Your task to perform on an android device: toggle show notifications on the lock screen Image 0: 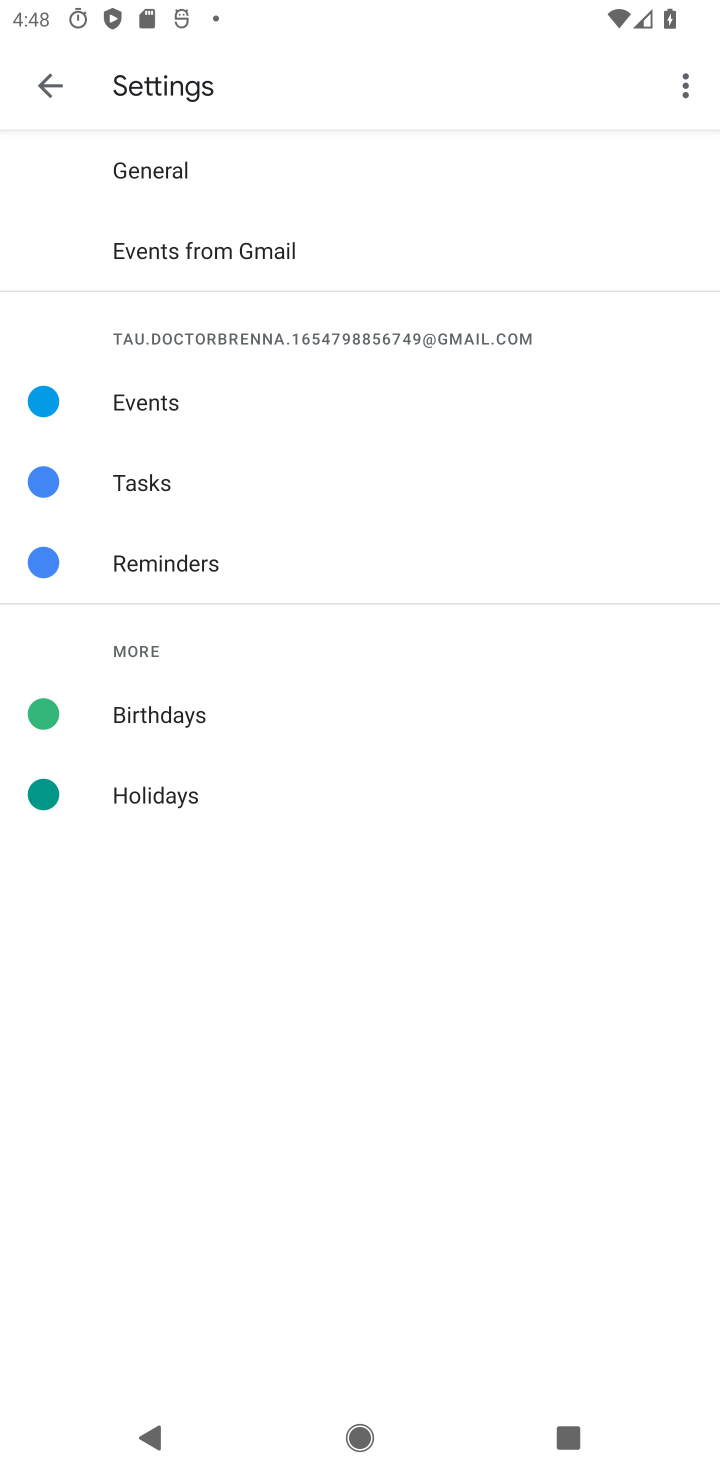
Step 0: press home button
Your task to perform on an android device: toggle show notifications on the lock screen Image 1: 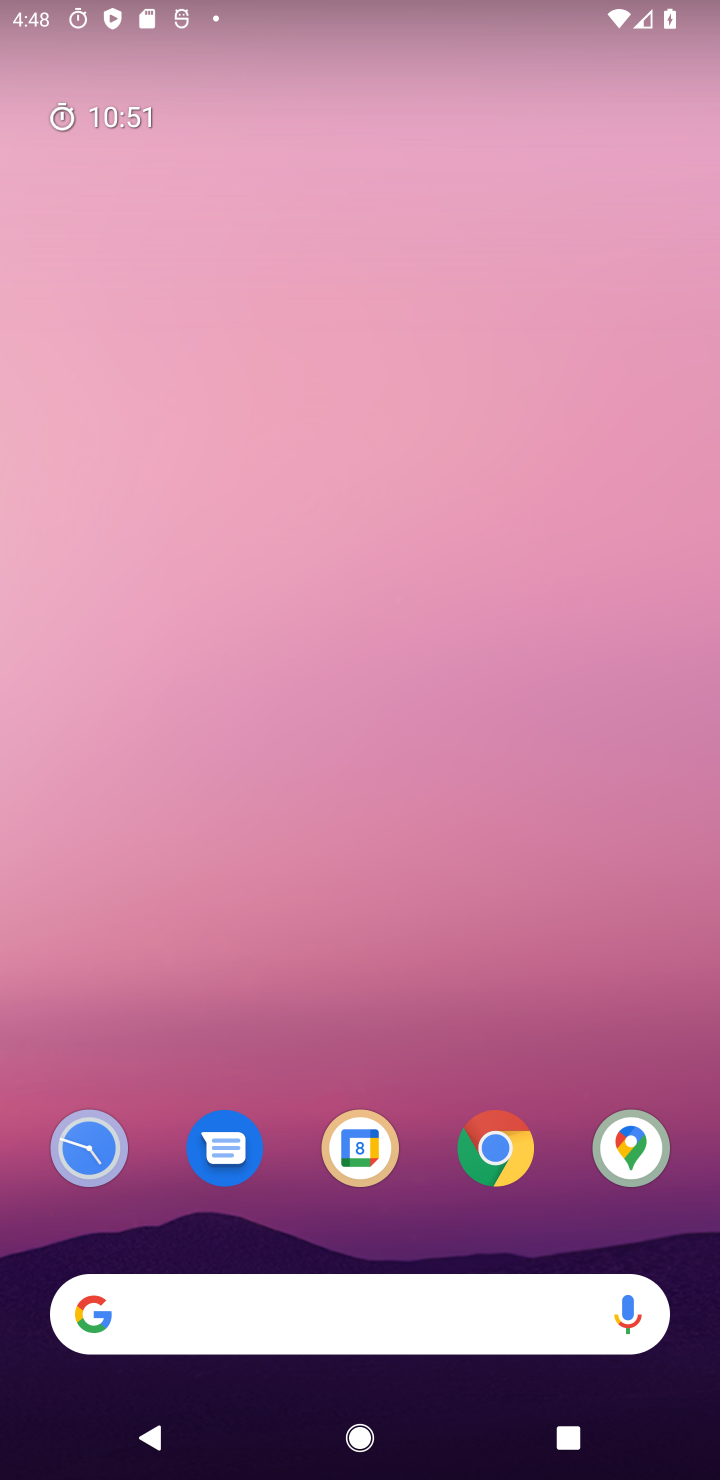
Step 1: drag from (387, 1160) to (294, 36)
Your task to perform on an android device: toggle show notifications on the lock screen Image 2: 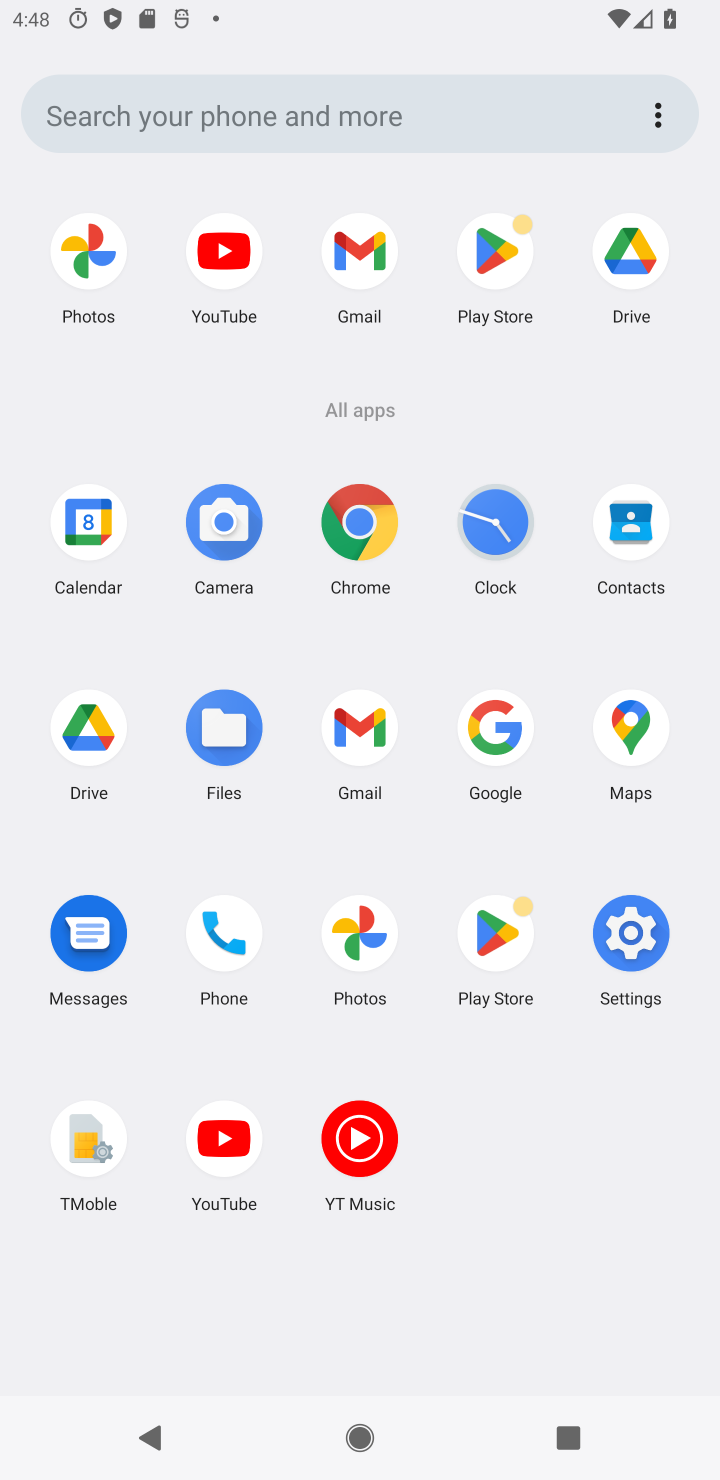
Step 2: click (629, 950)
Your task to perform on an android device: toggle show notifications on the lock screen Image 3: 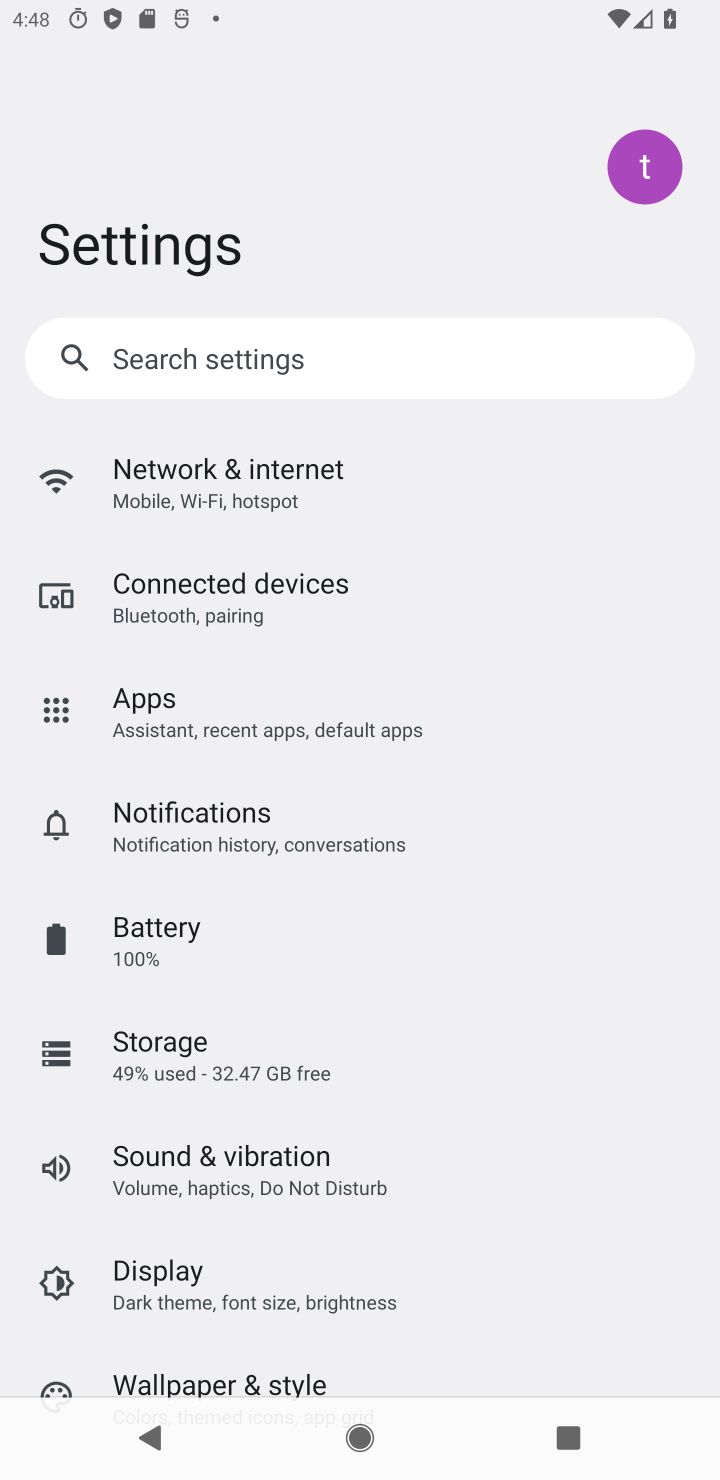
Step 3: click (264, 821)
Your task to perform on an android device: toggle show notifications on the lock screen Image 4: 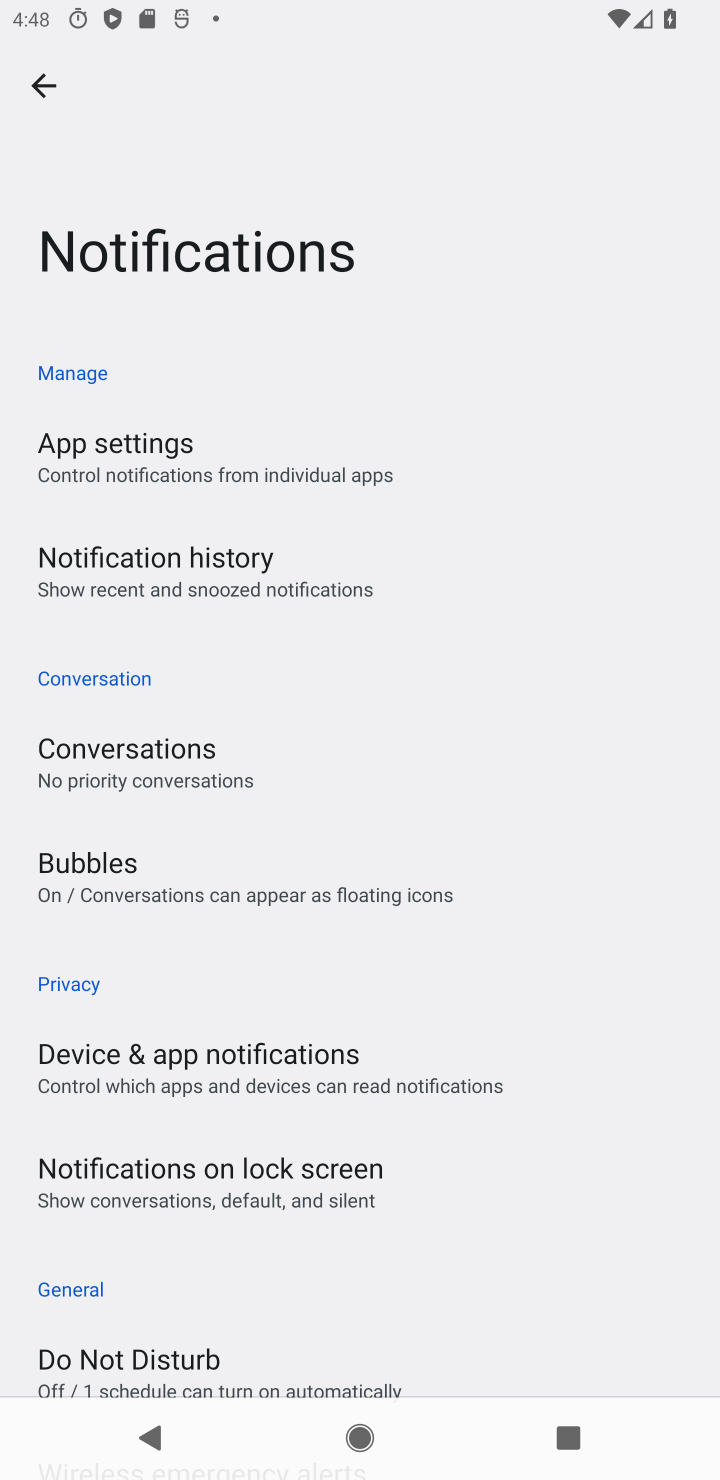
Step 4: click (187, 1165)
Your task to perform on an android device: toggle show notifications on the lock screen Image 5: 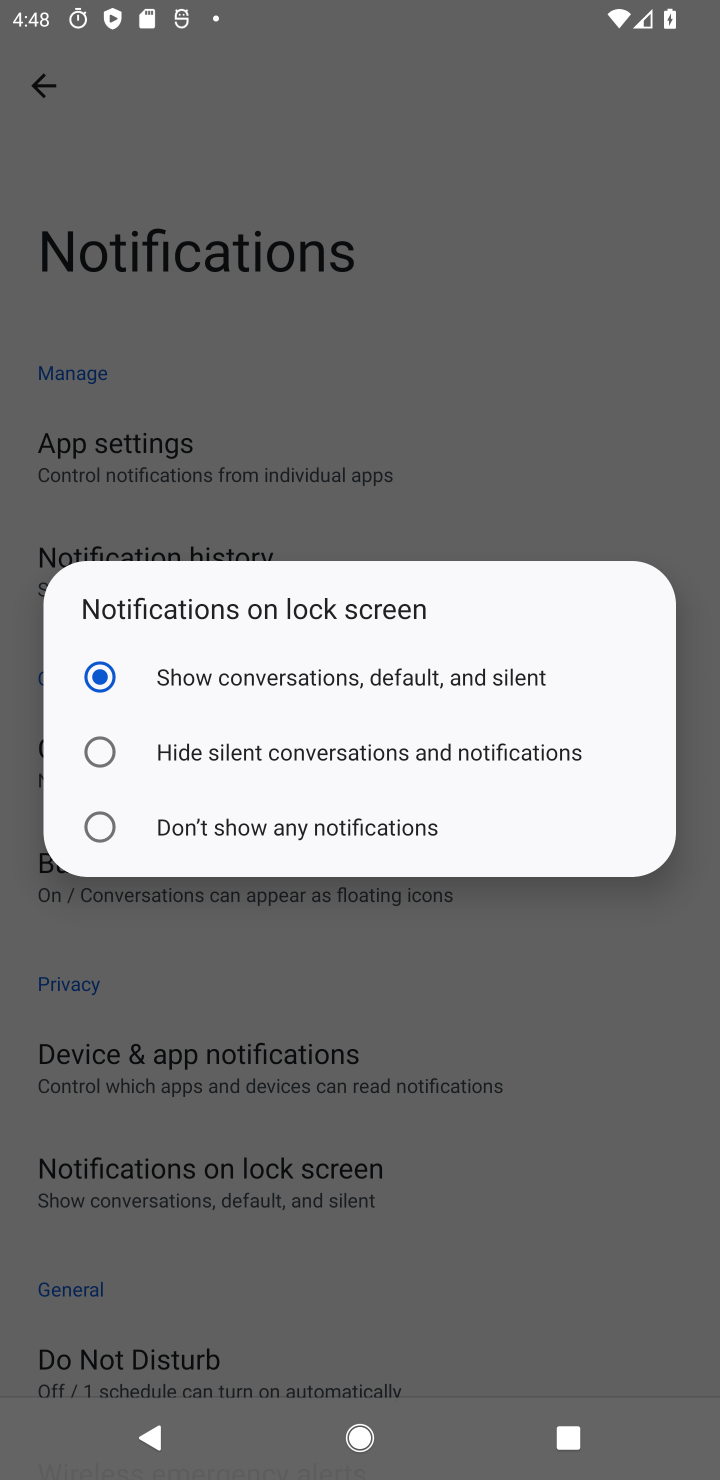
Step 5: click (226, 761)
Your task to perform on an android device: toggle show notifications on the lock screen Image 6: 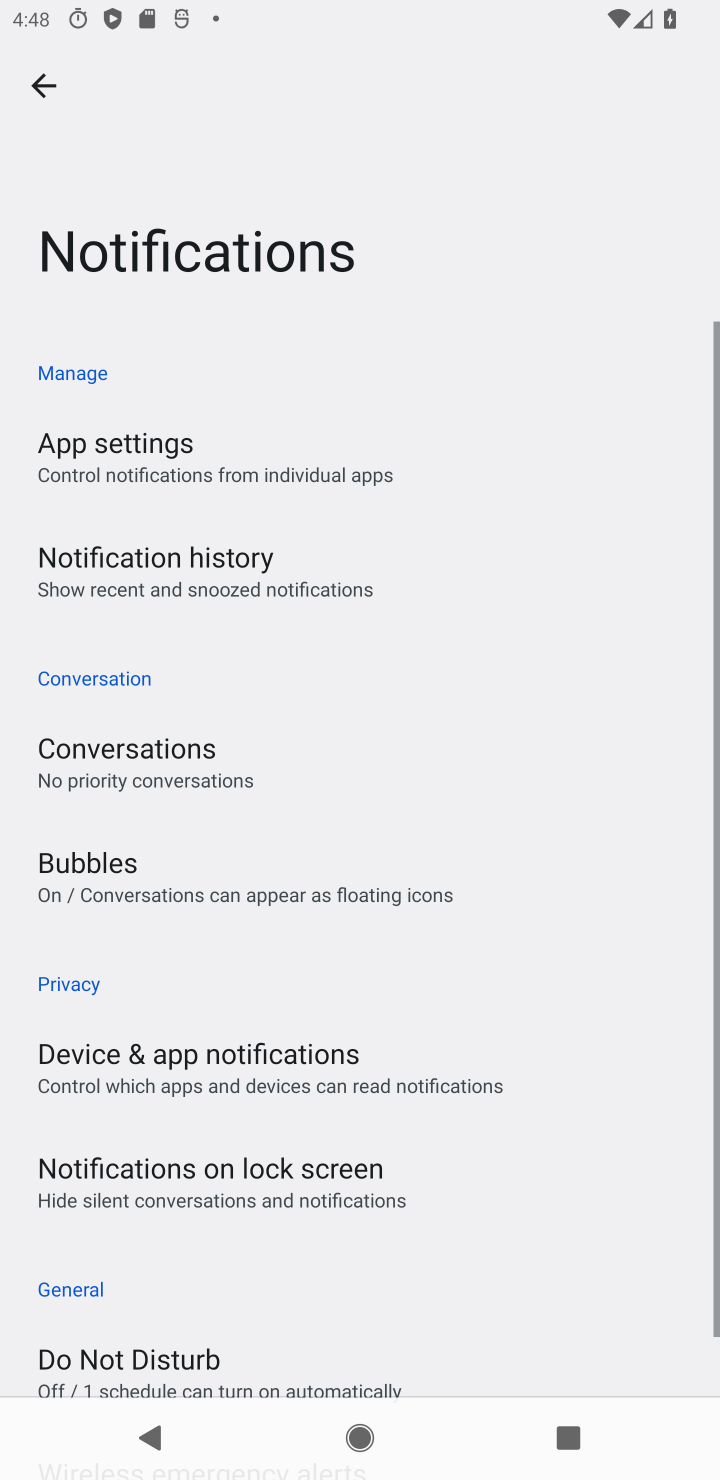
Step 6: task complete